Your task to perform on an android device: turn pop-ups on in chrome Image 0: 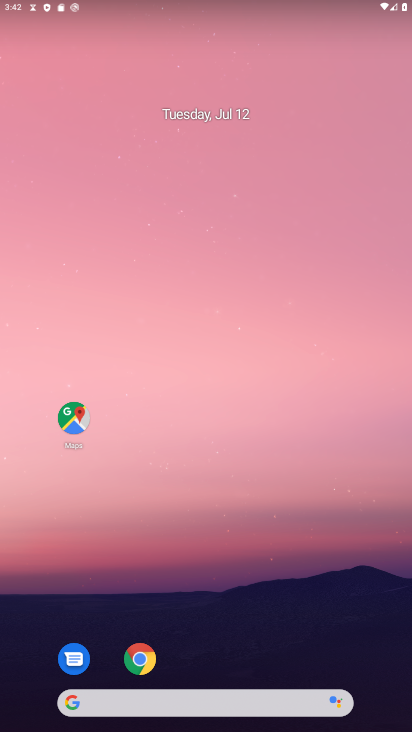
Step 0: press home button
Your task to perform on an android device: turn pop-ups on in chrome Image 1: 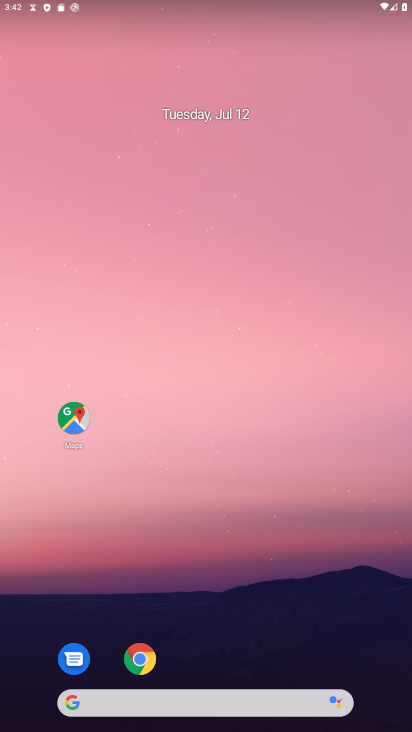
Step 1: press home button
Your task to perform on an android device: turn pop-ups on in chrome Image 2: 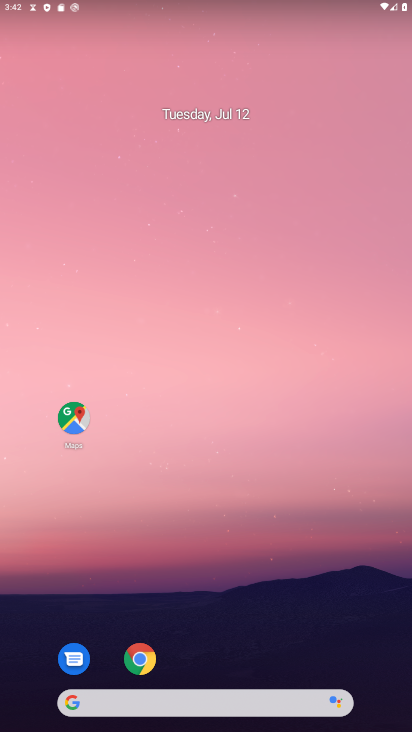
Step 2: drag from (226, 662) to (198, 111)
Your task to perform on an android device: turn pop-ups on in chrome Image 3: 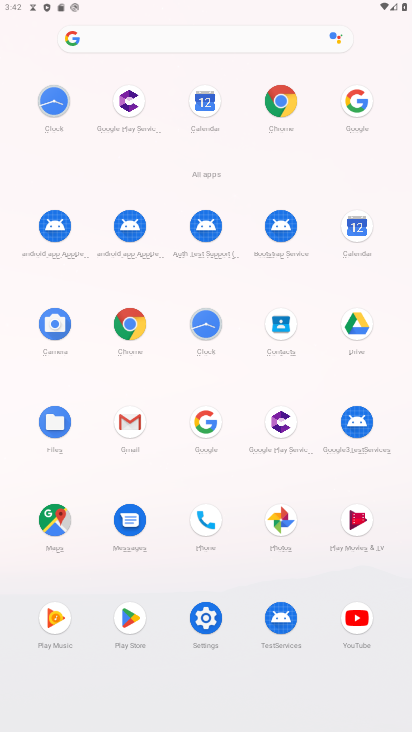
Step 3: click (280, 91)
Your task to perform on an android device: turn pop-ups on in chrome Image 4: 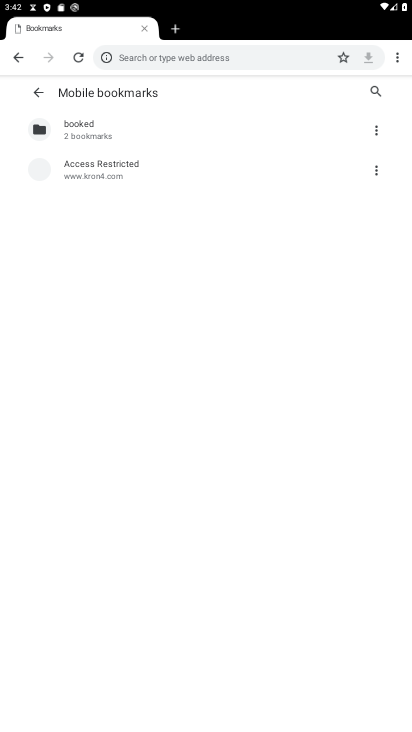
Step 4: drag from (398, 58) to (285, 257)
Your task to perform on an android device: turn pop-ups on in chrome Image 5: 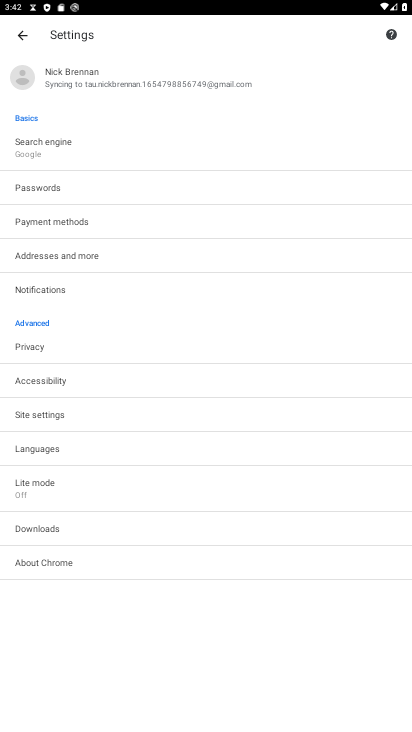
Step 5: click (99, 415)
Your task to perform on an android device: turn pop-ups on in chrome Image 6: 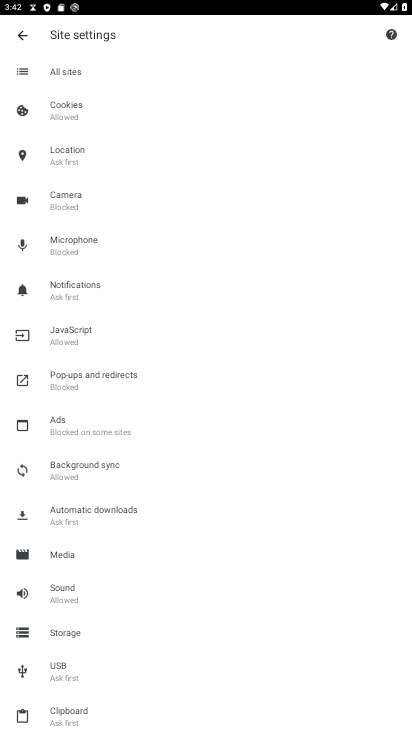
Step 6: click (111, 366)
Your task to perform on an android device: turn pop-ups on in chrome Image 7: 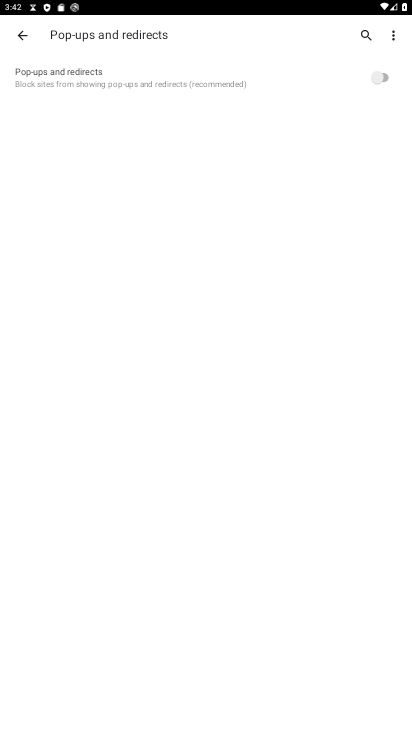
Step 7: click (383, 78)
Your task to perform on an android device: turn pop-ups on in chrome Image 8: 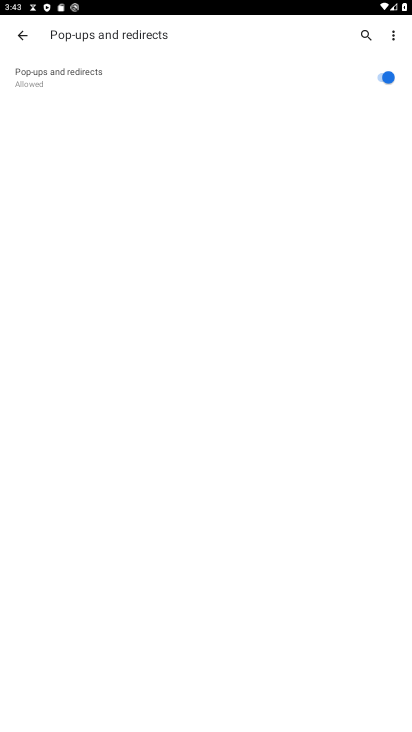
Step 8: task complete